Your task to perform on an android device: Open eBay Image 0: 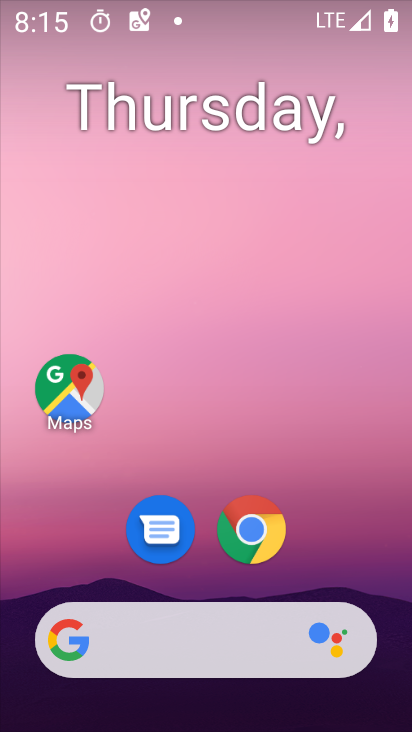
Step 0: drag from (368, 573) to (359, 199)
Your task to perform on an android device: Open eBay Image 1: 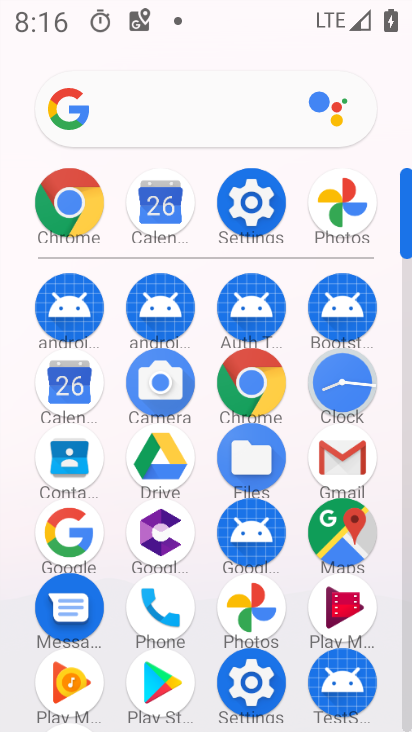
Step 1: click (274, 395)
Your task to perform on an android device: Open eBay Image 2: 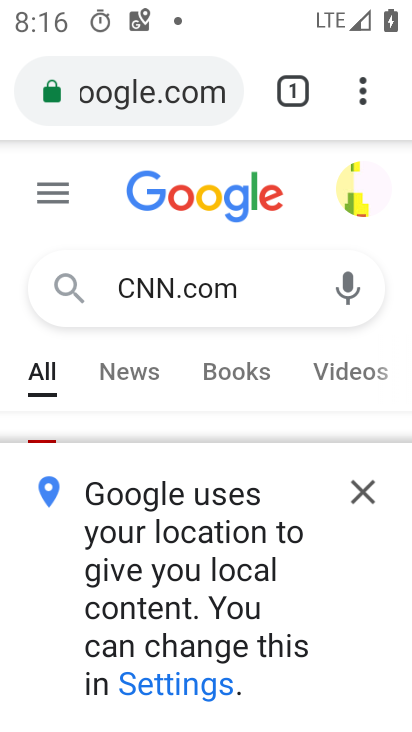
Step 2: click (202, 104)
Your task to perform on an android device: Open eBay Image 3: 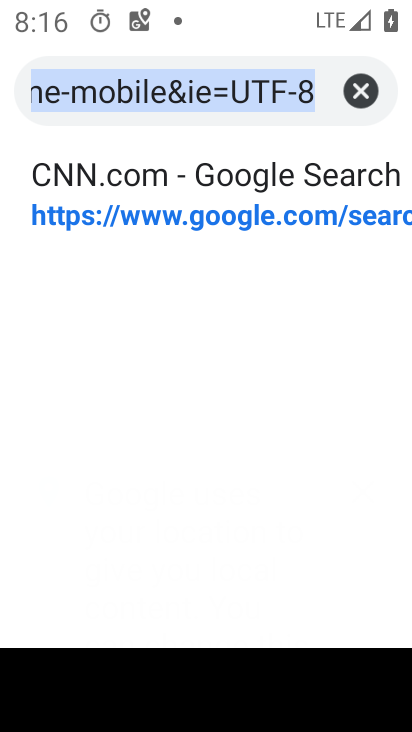
Step 3: click (368, 94)
Your task to perform on an android device: Open eBay Image 4: 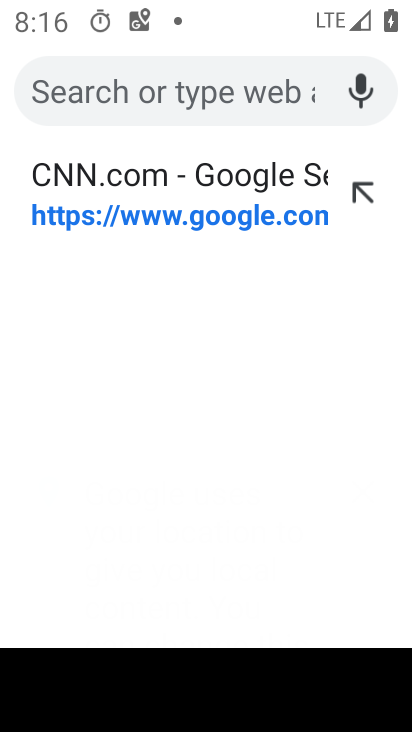
Step 4: type "ebay"
Your task to perform on an android device: Open eBay Image 5: 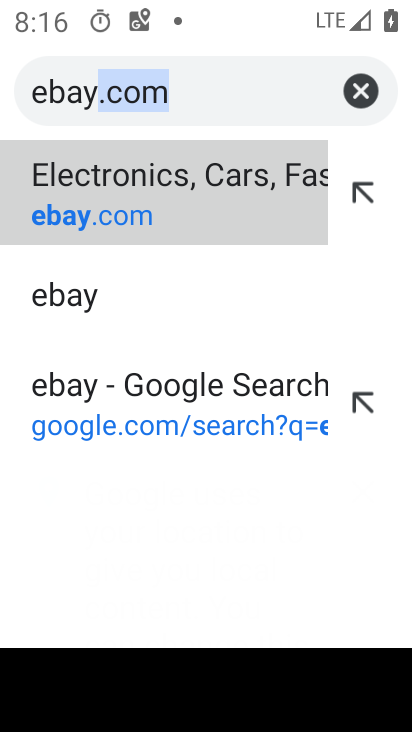
Step 5: click (186, 185)
Your task to perform on an android device: Open eBay Image 6: 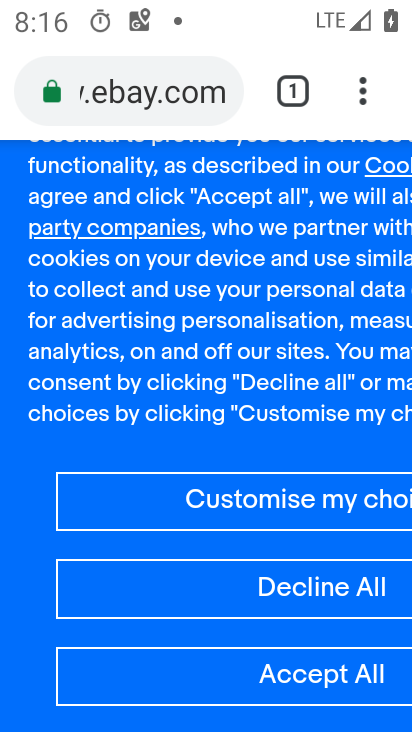
Step 6: task complete